Your task to perform on an android device: Open calendar and show me the third week of next month Image 0: 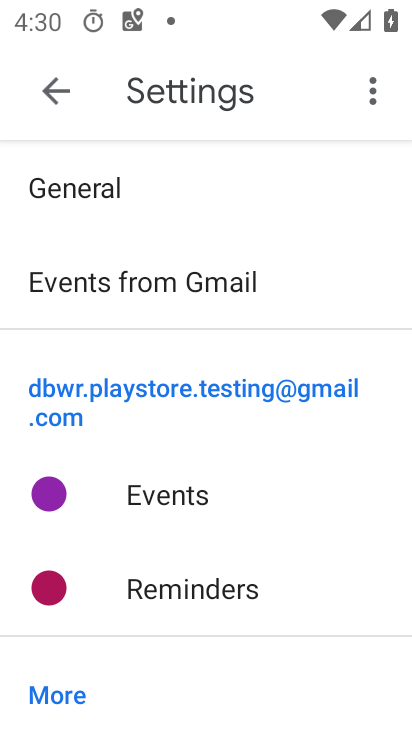
Step 0: press home button
Your task to perform on an android device: Open calendar and show me the third week of next month Image 1: 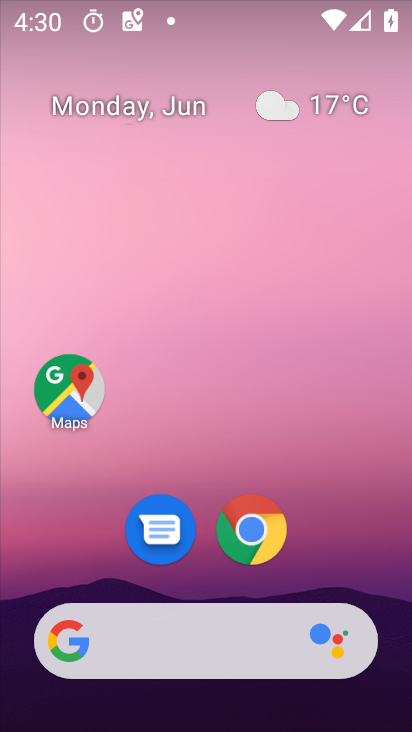
Step 1: drag from (345, 542) to (317, 45)
Your task to perform on an android device: Open calendar and show me the third week of next month Image 2: 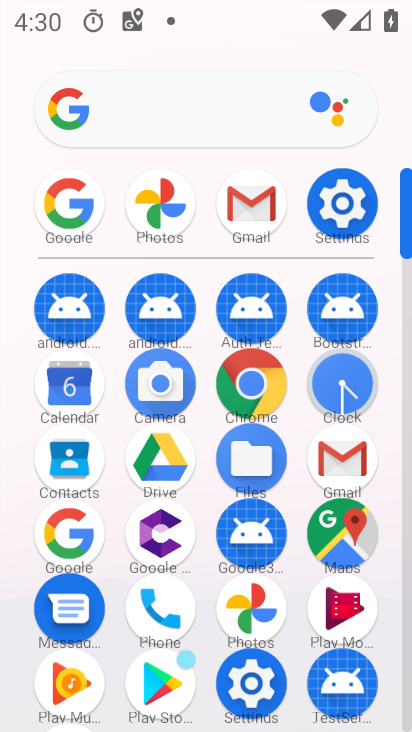
Step 2: click (73, 388)
Your task to perform on an android device: Open calendar and show me the third week of next month Image 3: 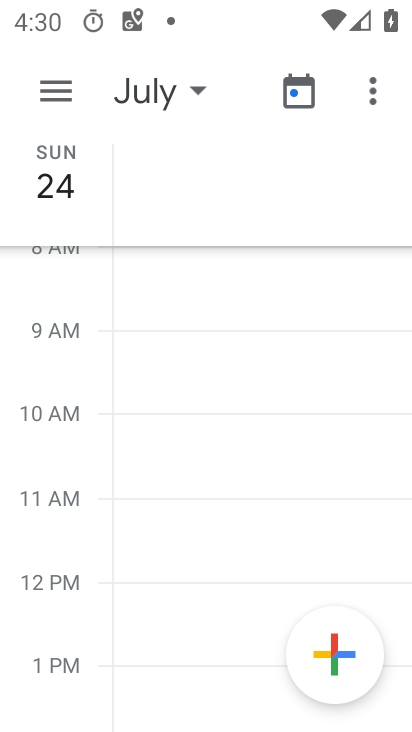
Step 3: click (305, 95)
Your task to perform on an android device: Open calendar and show me the third week of next month Image 4: 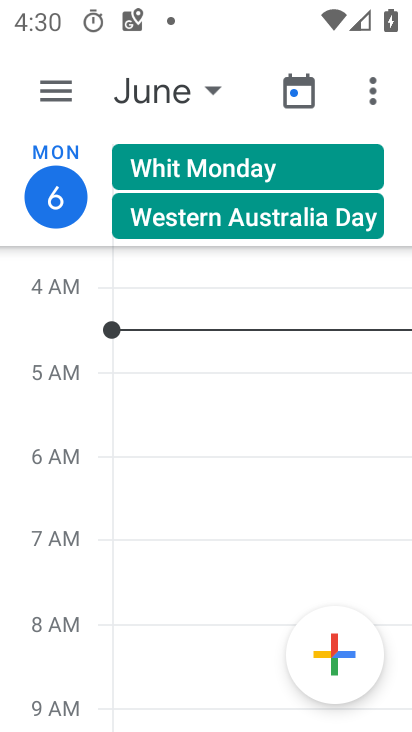
Step 4: click (209, 91)
Your task to perform on an android device: Open calendar and show me the third week of next month Image 5: 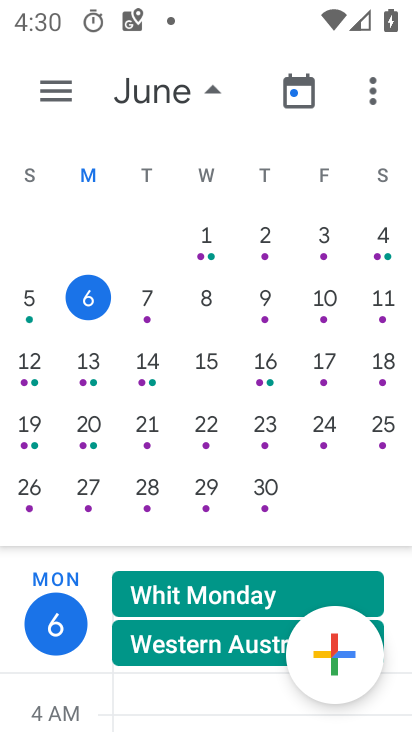
Step 5: drag from (359, 333) to (42, 354)
Your task to perform on an android device: Open calendar and show me the third week of next month Image 6: 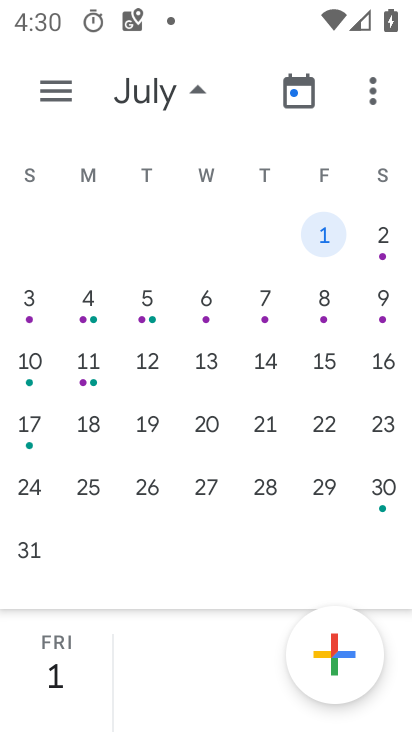
Step 6: click (96, 418)
Your task to perform on an android device: Open calendar and show me the third week of next month Image 7: 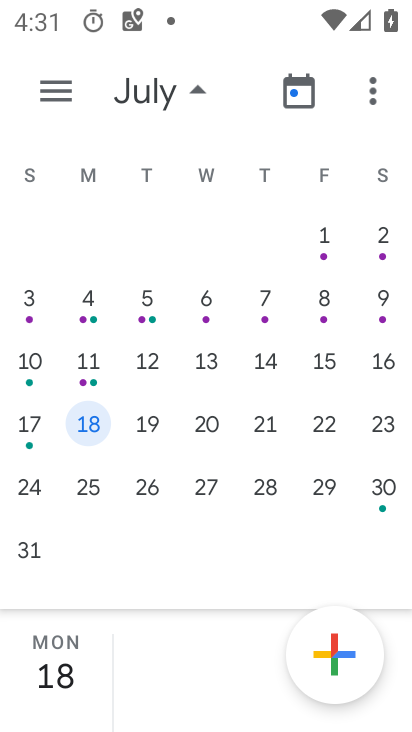
Step 7: click (52, 104)
Your task to perform on an android device: Open calendar and show me the third week of next month Image 8: 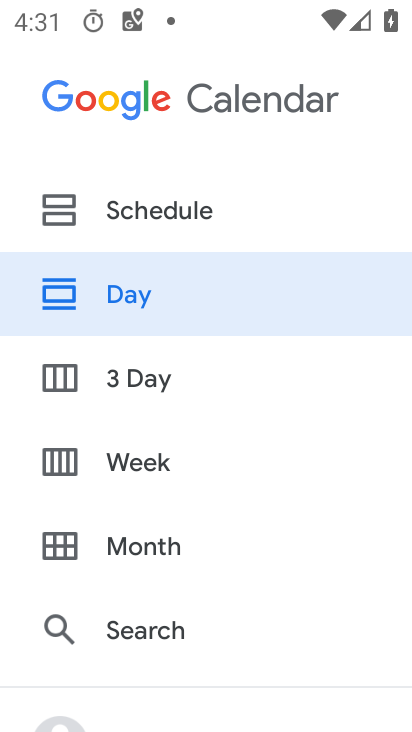
Step 8: click (154, 462)
Your task to perform on an android device: Open calendar and show me the third week of next month Image 9: 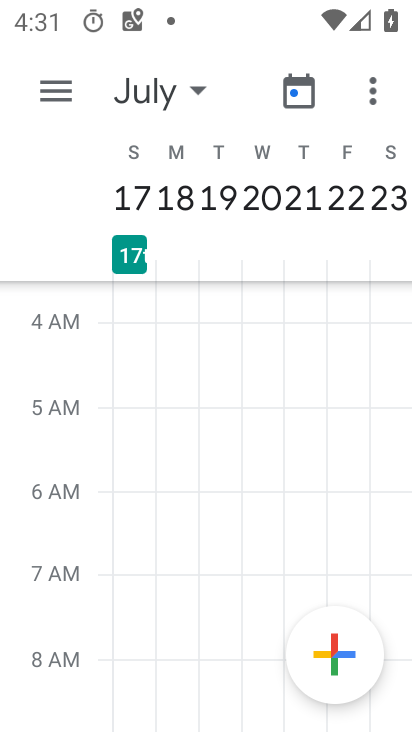
Step 9: task complete